Your task to perform on an android device: Turn on the flashlight Image 0: 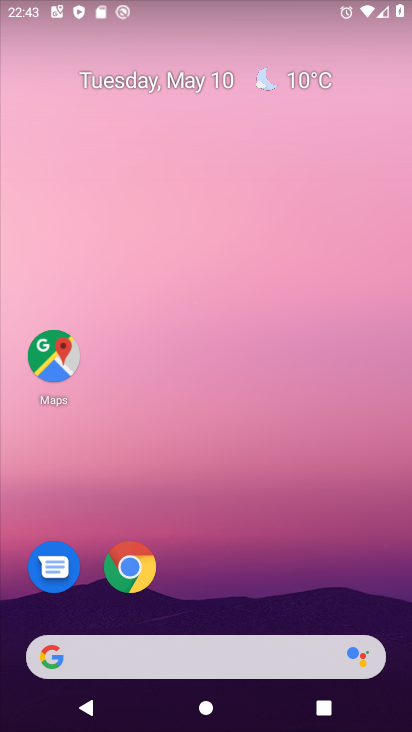
Step 0: drag from (225, 9) to (232, 707)
Your task to perform on an android device: Turn on the flashlight Image 1: 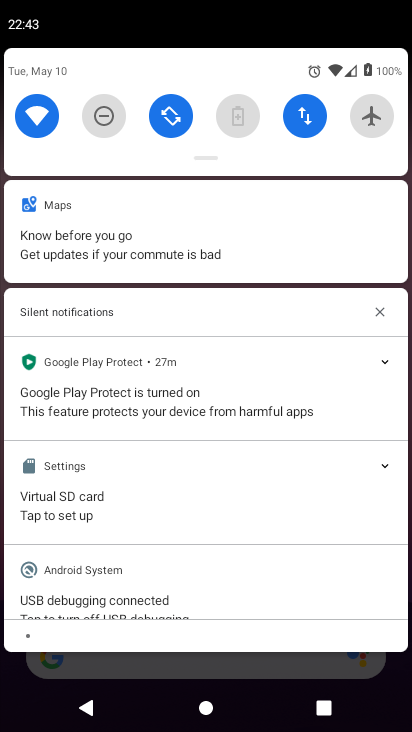
Step 1: task complete